Your task to perform on an android device: move an email to a new category in the gmail app Image 0: 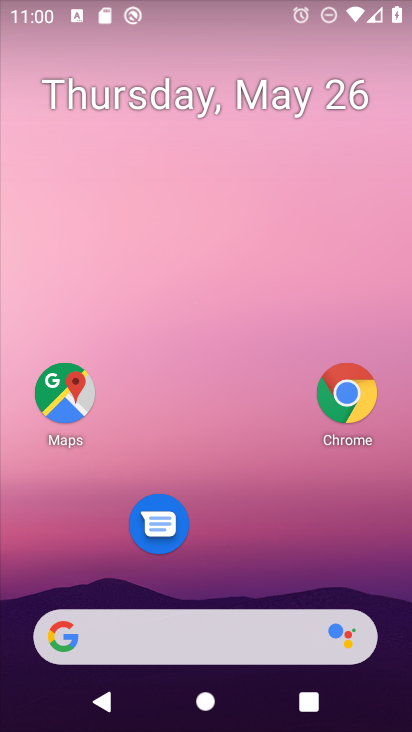
Step 0: drag from (237, 560) to (252, 3)
Your task to perform on an android device: move an email to a new category in the gmail app Image 1: 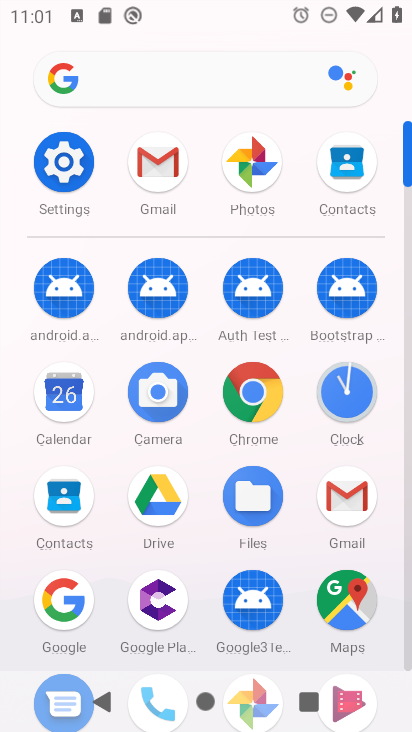
Step 1: click (158, 154)
Your task to perform on an android device: move an email to a new category in the gmail app Image 2: 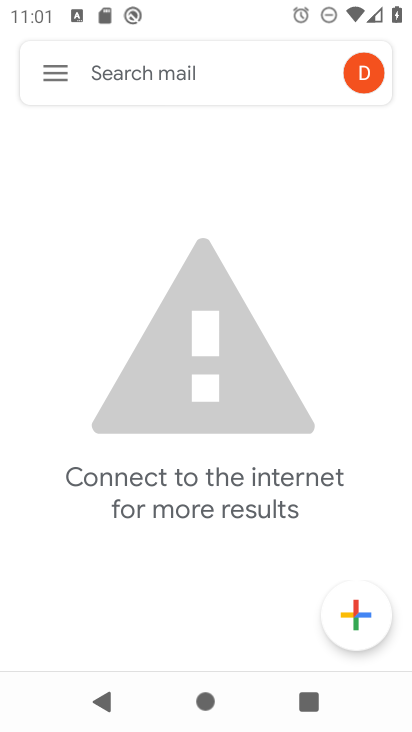
Step 2: click (54, 71)
Your task to perform on an android device: move an email to a new category in the gmail app Image 3: 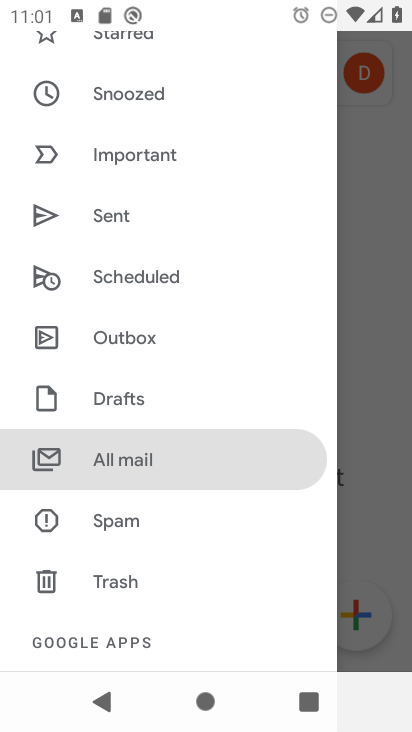
Step 3: click (106, 511)
Your task to perform on an android device: move an email to a new category in the gmail app Image 4: 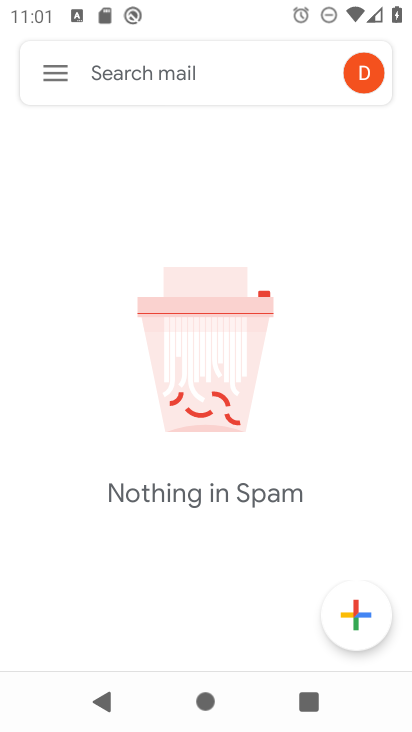
Step 4: click (58, 58)
Your task to perform on an android device: move an email to a new category in the gmail app Image 5: 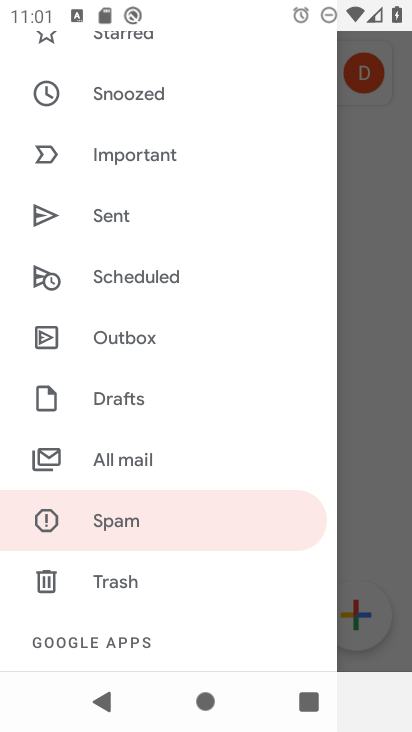
Step 5: click (118, 458)
Your task to perform on an android device: move an email to a new category in the gmail app Image 6: 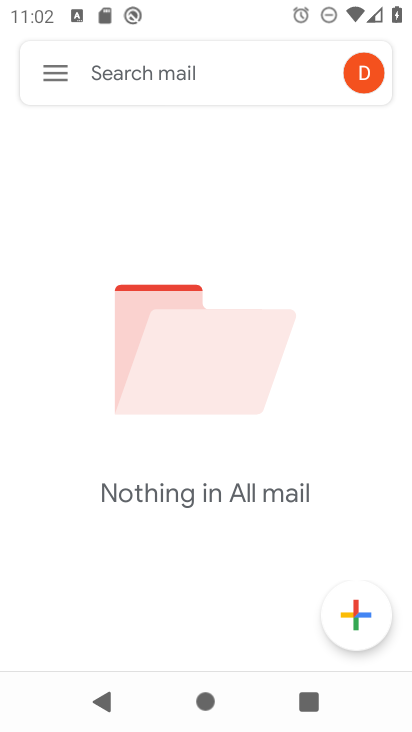
Step 6: task complete